Your task to perform on an android device: Search for sushi restaurants on Maps Image 0: 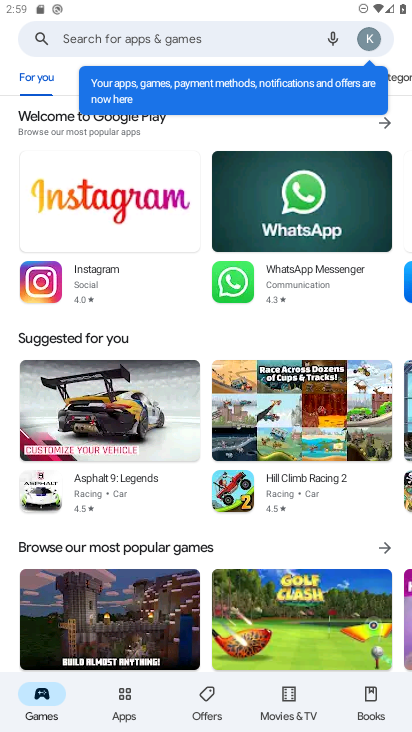
Step 0: press home button
Your task to perform on an android device: Search for sushi restaurants on Maps Image 1: 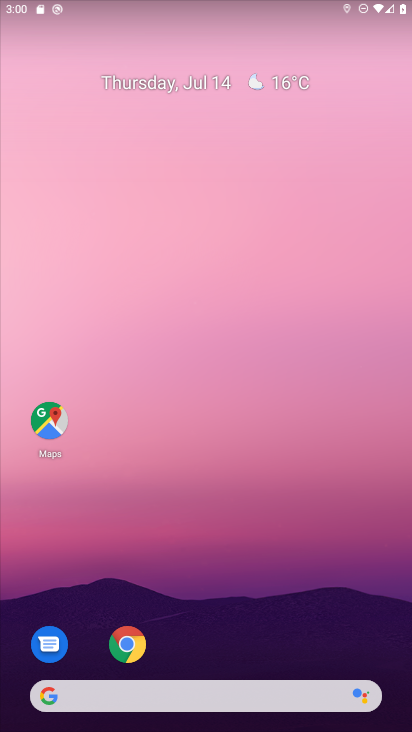
Step 1: click (36, 430)
Your task to perform on an android device: Search for sushi restaurants on Maps Image 2: 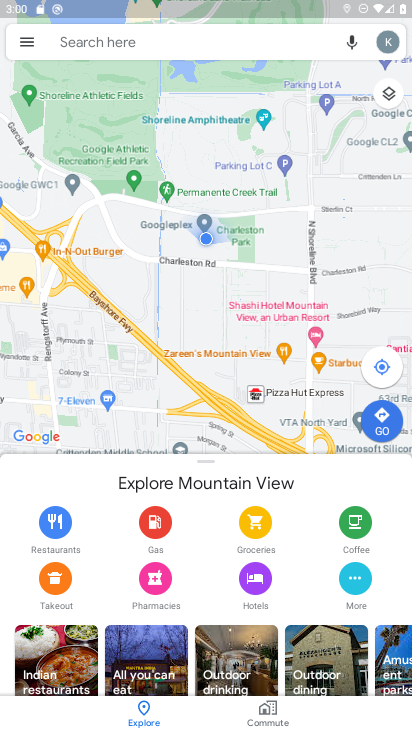
Step 2: click (183, 36)
Your task to perform on an android device: Search for sushi restaurants on Maps Image 3: 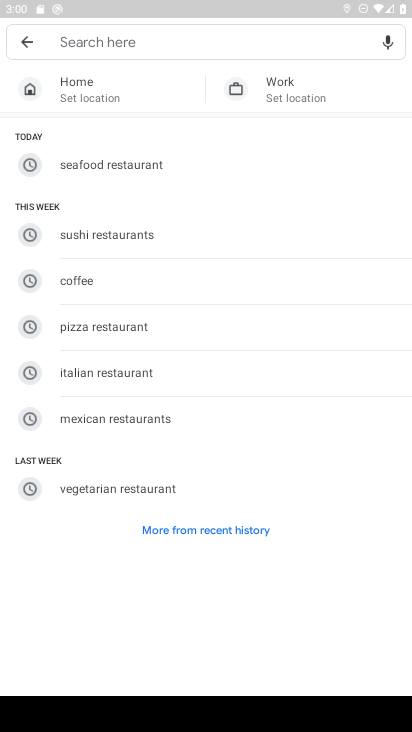
Step 3: type "sushi restaurants"
Your task to perform on an android device: Search for sushi restaurants on Maps Image 4: 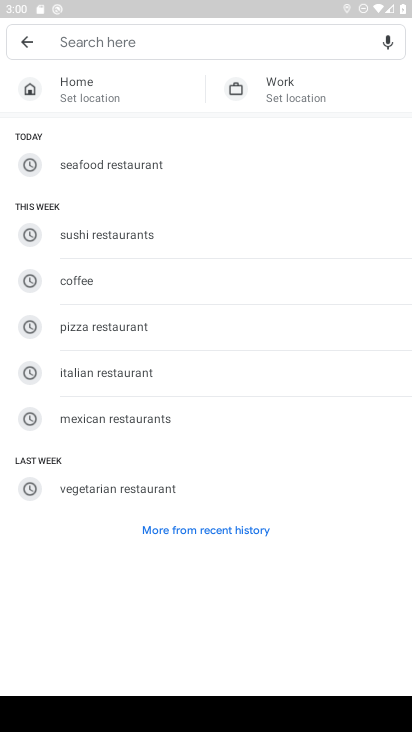
Step 4: click (178, 243)
Your task to perform on an android device: Search for sushi restaurants on Maps Image 5: 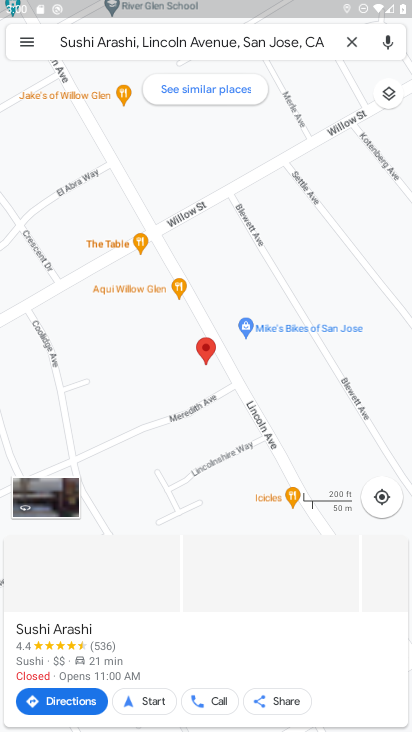
Step 5: task complete